Your task to perform on an android device: see creations saved in the google photos Image 0: 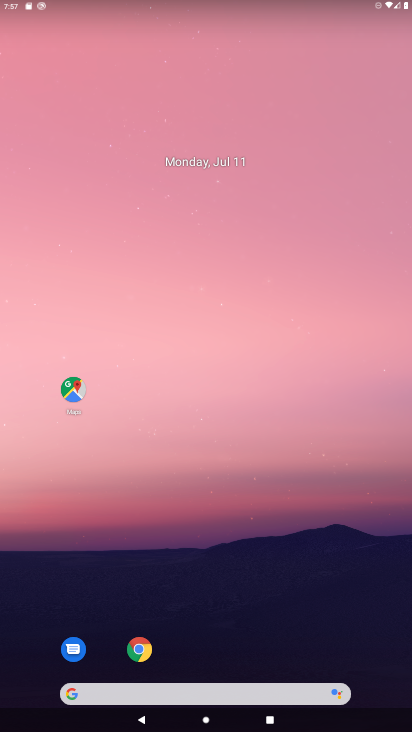
Step 0: drag from (217, 697) to (304, 161)
Your task to perform on an android device: see creations saved in the google photos Image 1: 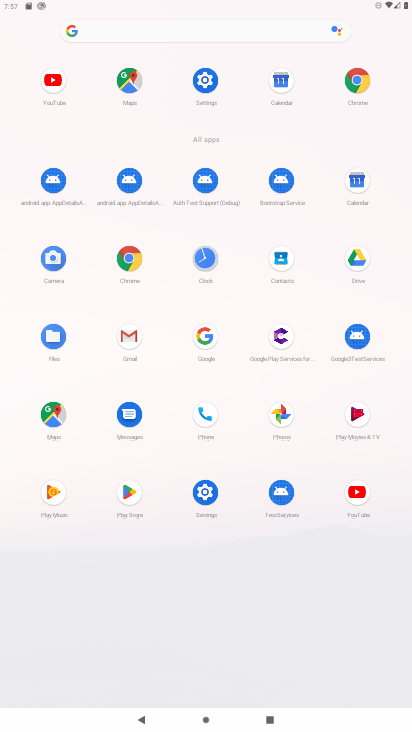
Step 1: click (281, 412)
Your task to perform on an android device: see creations saved in the google photos Image 2: 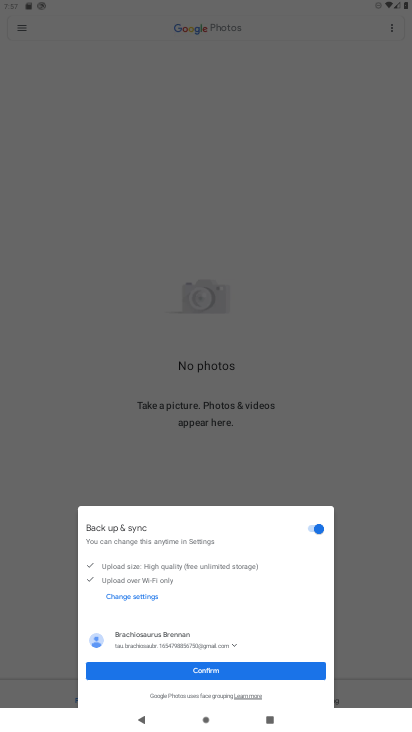
Step 2: click (201, 668)
Your task to perform on an android device: see creations saved in the google photos Image 3: 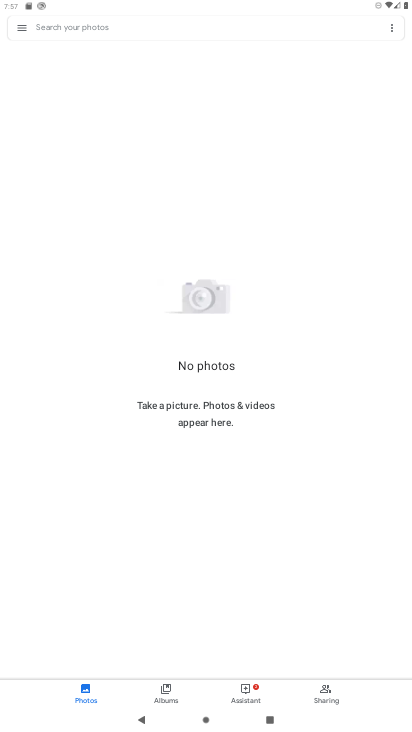
Step 3: click (18, 25)
Your task to perform on an android device: see creations saved in the google photos Image 4: 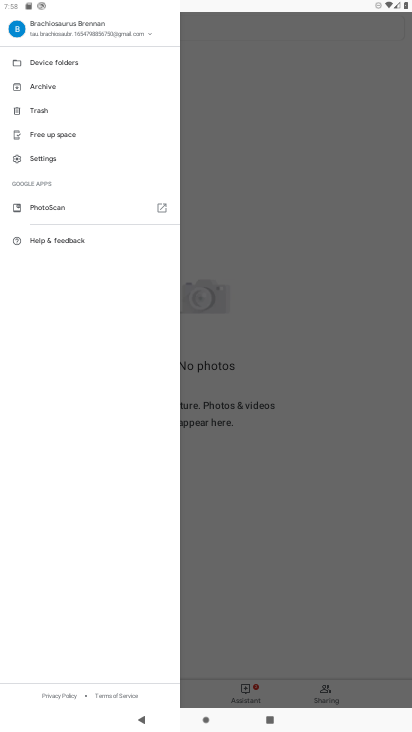
Step 4: click (249, 165)
Your task to perform on an android device: see creations saved in the google photos Image 5: 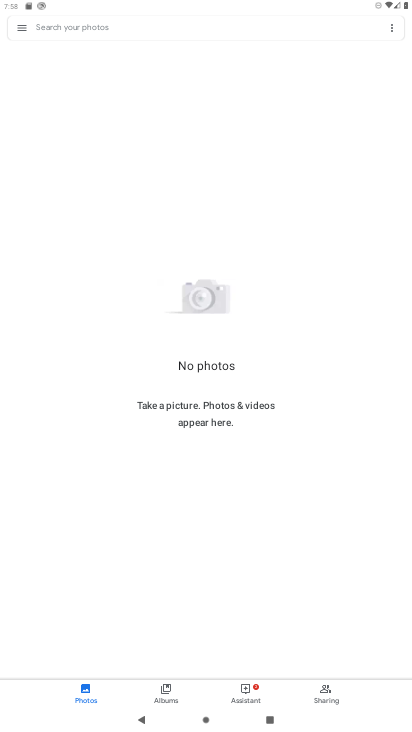
Step 5: click (159, 689)
Your task to perform on an android device: see creations saved in the google photos Image 6: 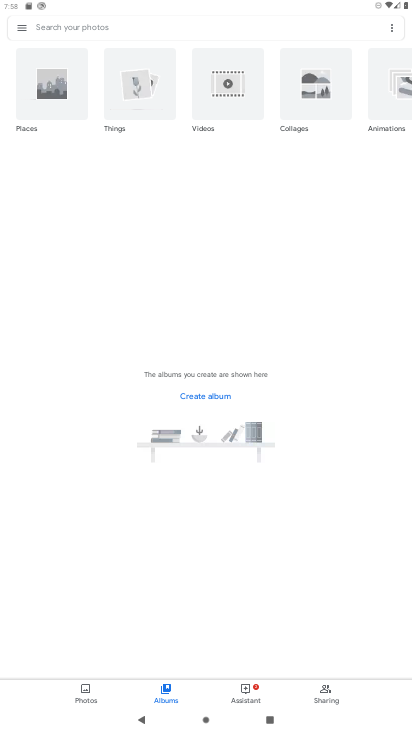
Step 6: click (83, 694)
Your task to perform on an android device: see creations saved in the google photos Image 7: 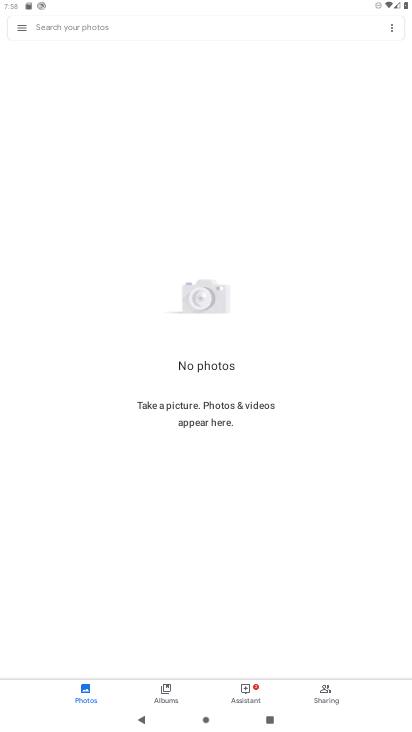
Step 7: click (24, 21)
Your task to perform on an android device: see creations saved in the google photos Image 8: 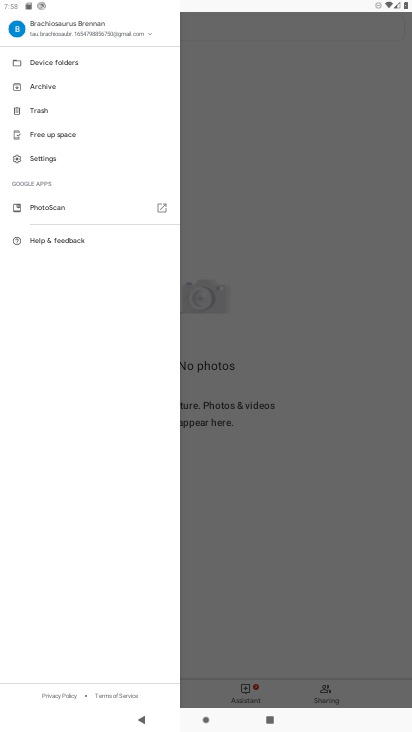
Step 8: click (57, 149)
Your task to perform on an android device: see creations saved in the google photos Image 9: 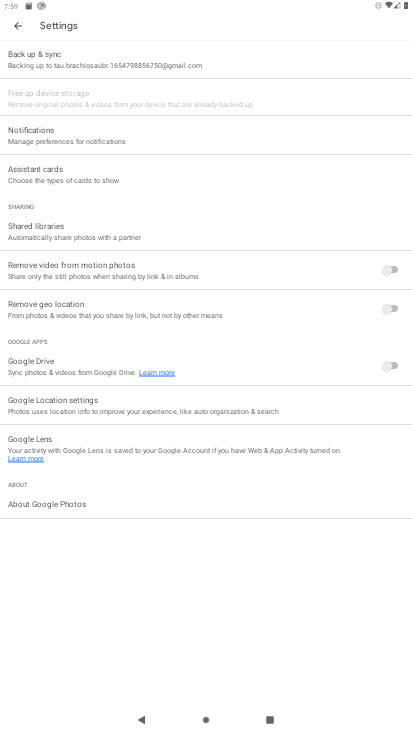
Step 9: click (33, 58)
Your task to perform on an android device: see creations saved in the google photos Image 10: 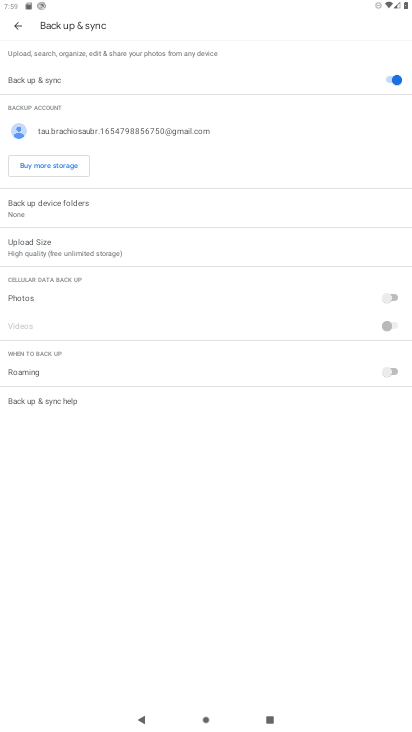
Step 10: press back button
Your task to perform on an android device: see creations saved in the google photos Image 11: 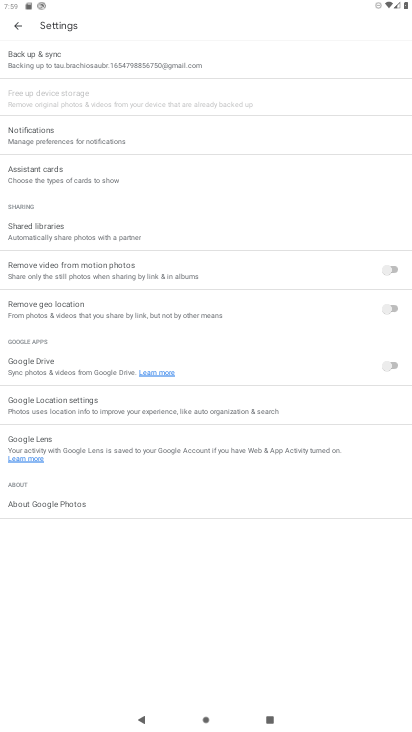
Step 11: press back button
Your task to perform on an android device: see creations saved in the google photos Image 12: 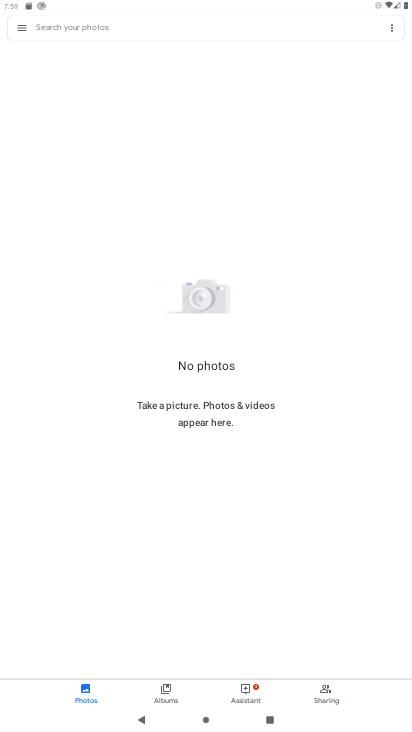
Step 12: click (255, 686)
Your task to perform on an android device: see creations saved in the google photos Image 13: 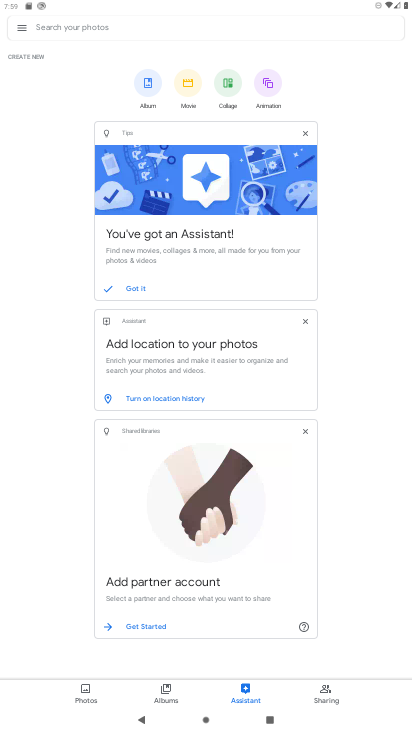
Step 13: drag from (223, 596) to (290, 335)
Your task to perform on an android device: see creations saved in the google photos Image 14: 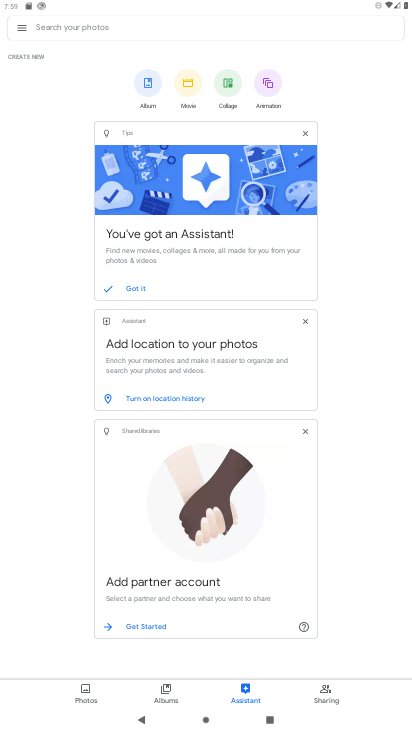
Step 14: click (325, 689)
Your task to perform on an android device: see creations saved in the google photos Image 15: 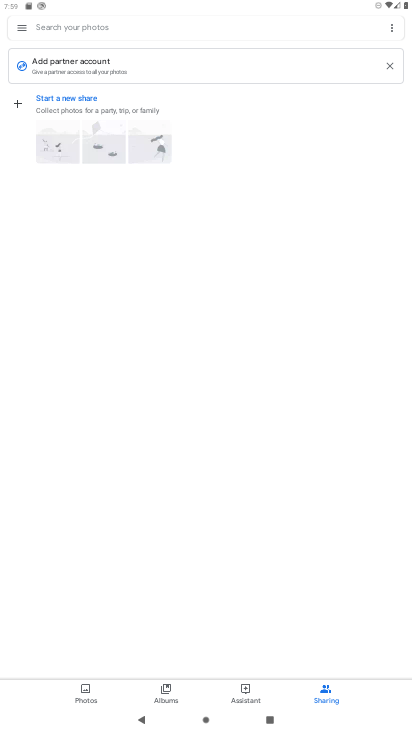
Step 15: task complete